Your task to perform on an android device: open device folders in google photos Image 0: 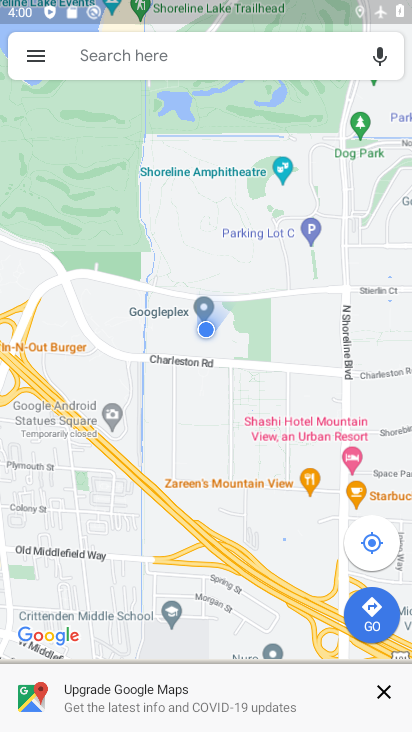
Step 0: press home button
Your task to perform on an android device: open device folders in google photos Image 1: 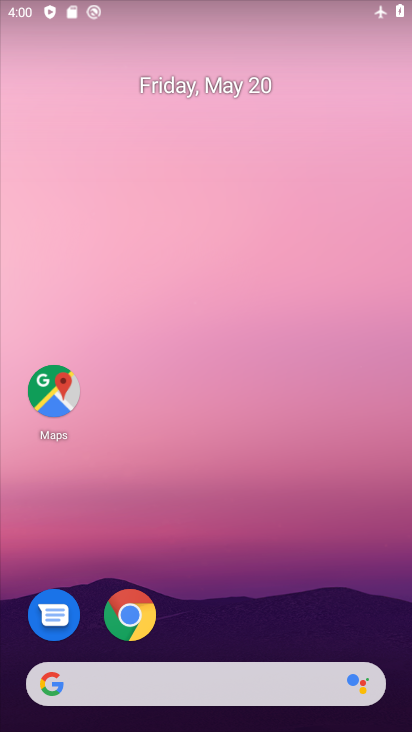
Step 1: drag from (253, 510) to (316, 5)
Your task to perform on an android device: open device folders in google photos Image 2: 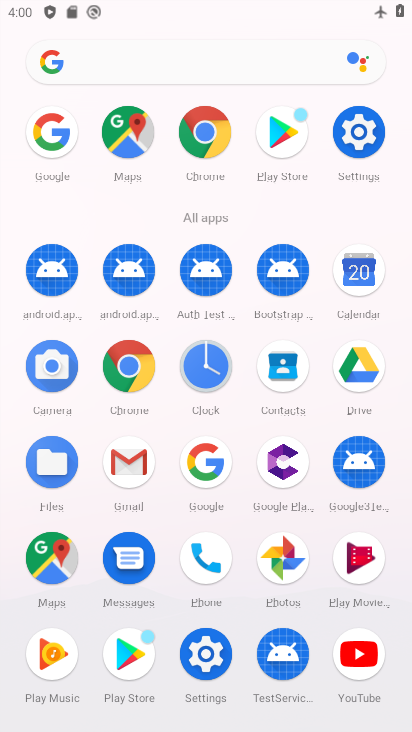
Step 2: click (285, 578)
Your task to perform on an android device: open device folders in google photos Image 3: 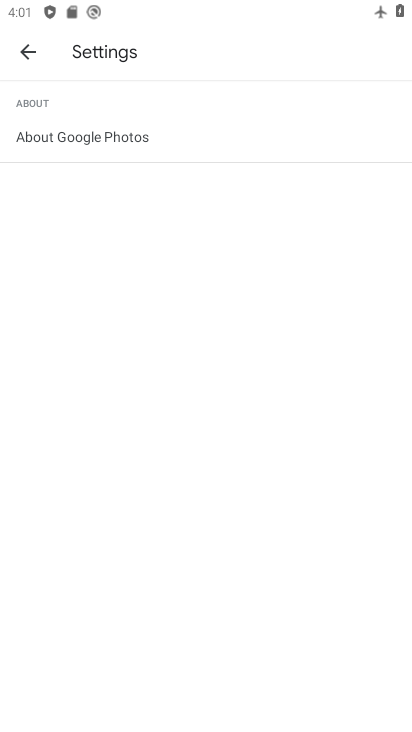
Step 3: click (33, 49)
Your task to perform on an android device: open device folders in google photos Image 4: 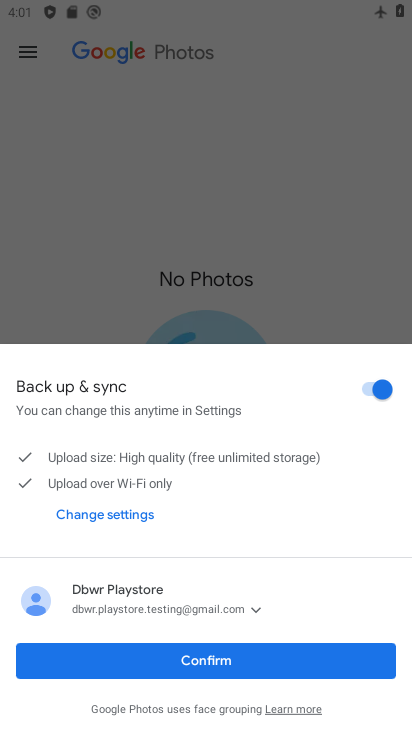
Step 4: click (210, 658)
Your task to perform on an android device: open device folders in google photos Image 5: 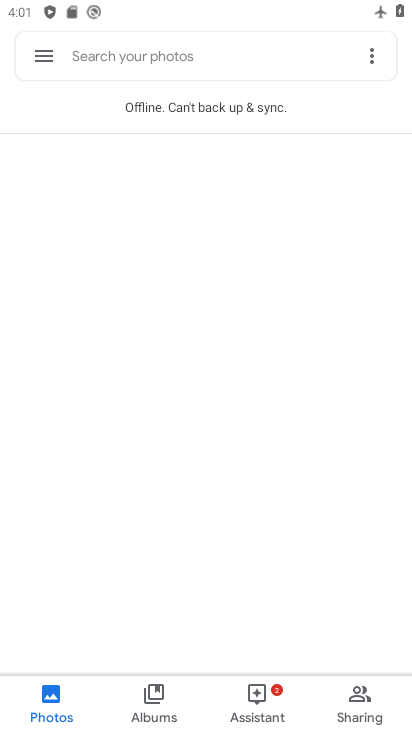
Step 5: click (44, 56)
Your task to perform on an android device: open device folders in google photos Image 6: 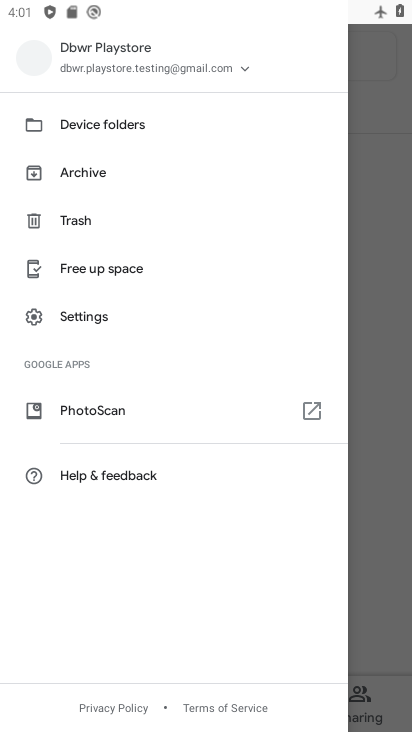
Step 6: click (159, 116)
Your task to perform on an android device: open device folders in google photos Image 7: 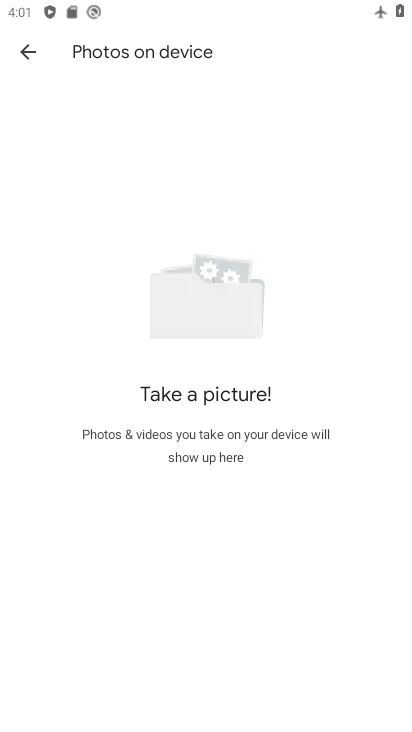
Step 7: task complete